Your task to perform on an android device: Open the calendar and show me this week's events Image 0: 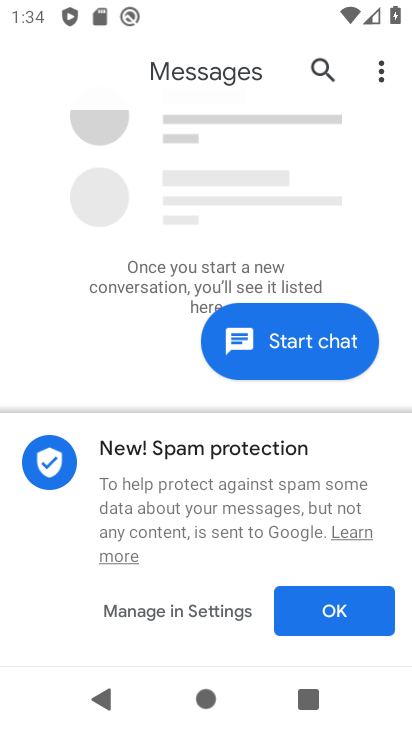
Step 0: press home button
Your task to perform on an android device: Open the calendar and show me this week's events Image 1: 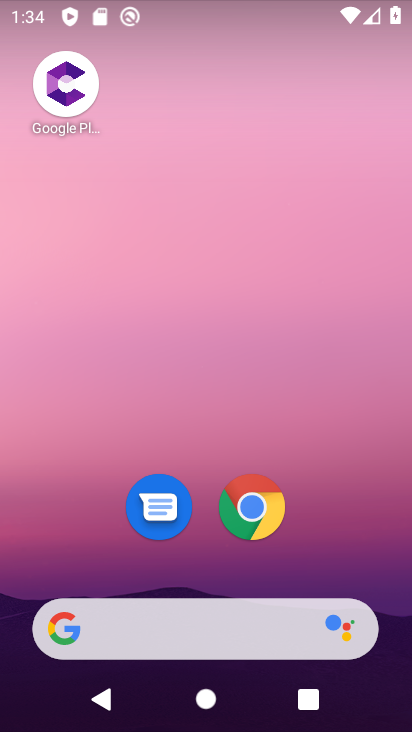
Step 1: drag from (211, 552) to (225, 12)
Your task to perform on an android device: Open the calendar and show me this week's events Image 2: 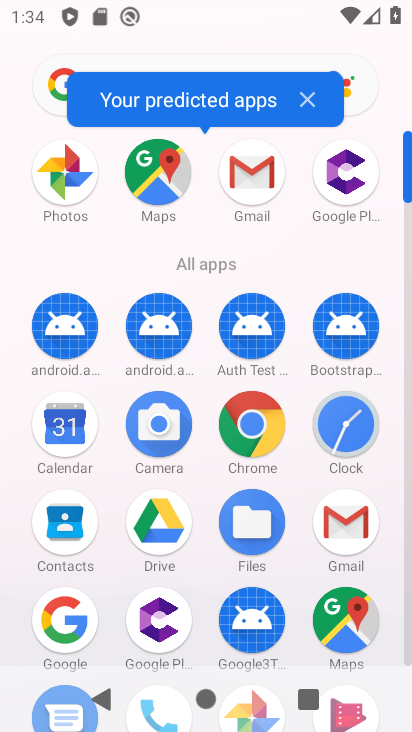
Step 2: click (64, 412)
Your task to perform on an android device: Open the calendar and show me this week's events Image 3: 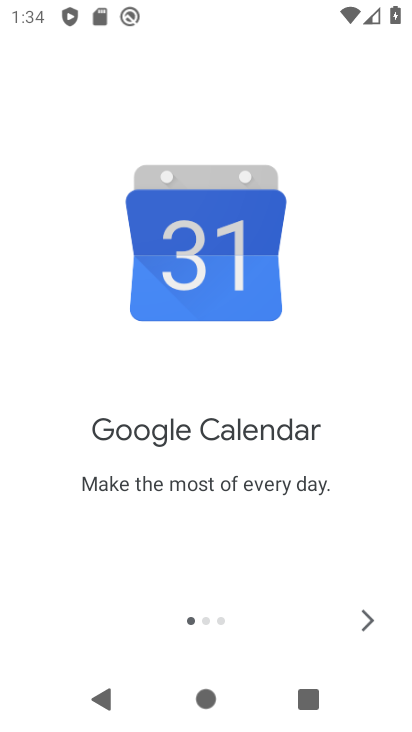
Step 3: click (362, 629)
Your task to perform on an android device: Open the calendar and show me this week's events Image 4: 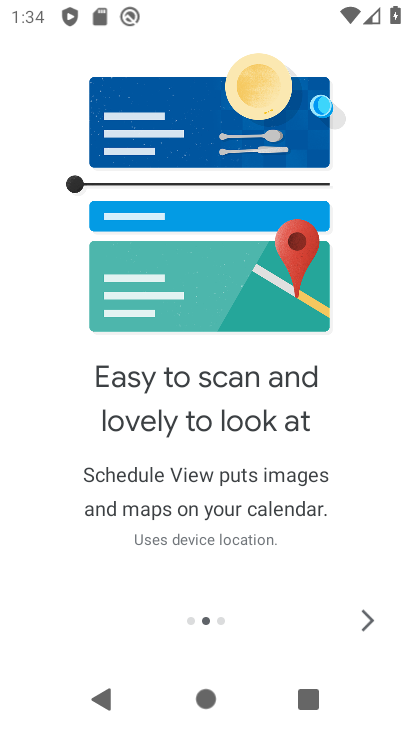
Step 4: click (362, 629)
Your task to perform on an android device: Open the calendar and show me this week's events Image 5: 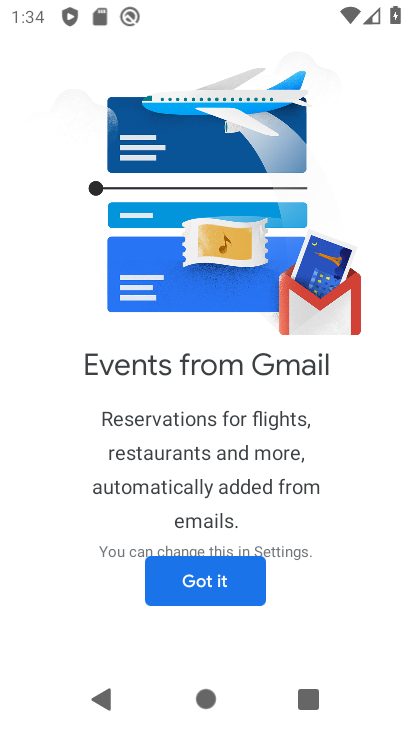
Step 5: click (223, 583)
Your task to perform on an android device: Open the calendar and show me this week's events Image 6: 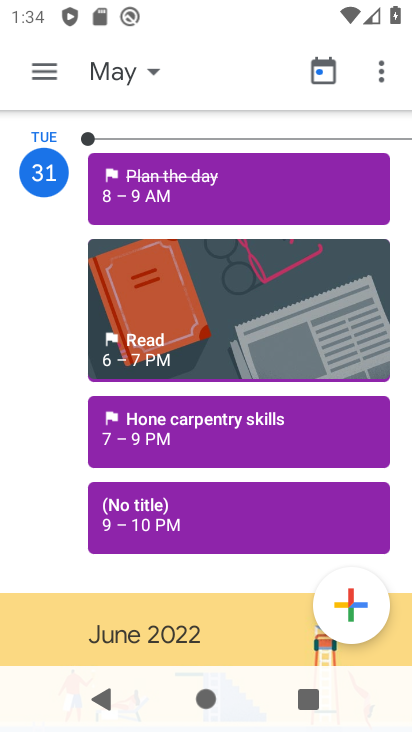
Step 6: task complete